Your task to perform on an android device: Go to accessibility settings Image 0: 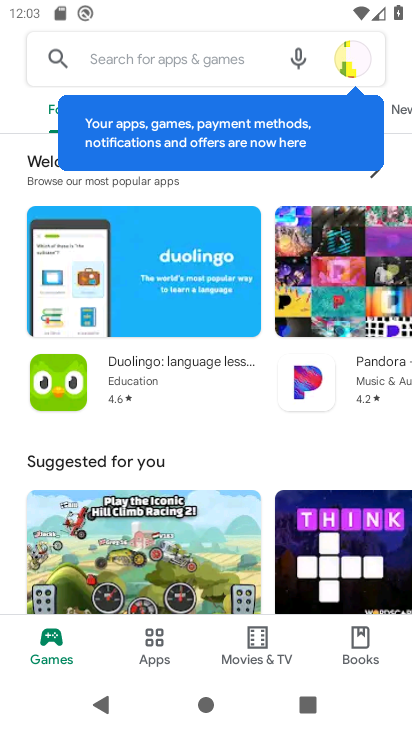
Step 0: press home button
Your task to perform on an android device: Go to accessibility settings Image 1: 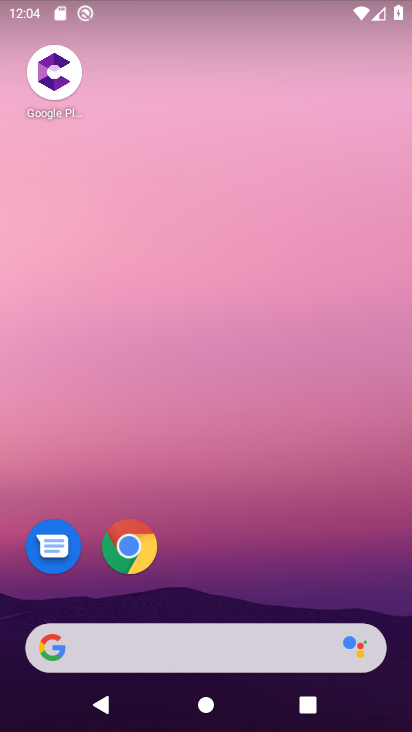
Step 1: click (317, 160)
Your task to perform on an android device: Go to accessibility settings Image 2: 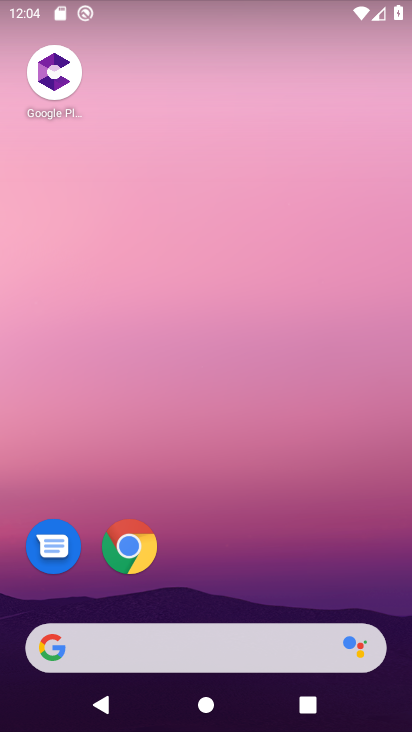
Step 2: drag from (240, 391) to (263, 179)
Your task to perform on an android device: Go to accessibility settings Image 3: 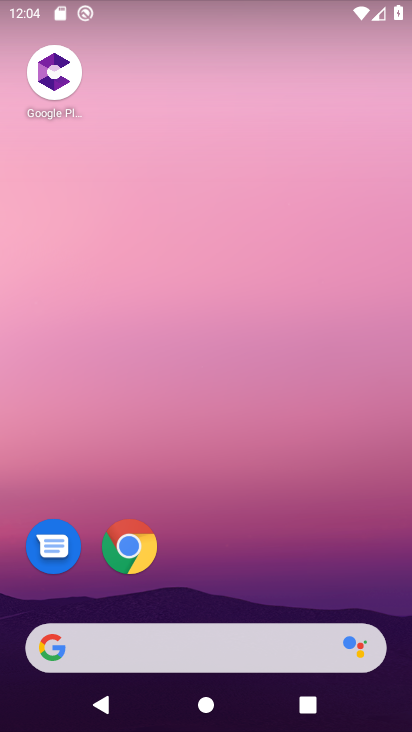
Step 3: drag from (228, 524) to (255, 185)
Your task to perform on an android device: Go to accessibility settings Image 4: 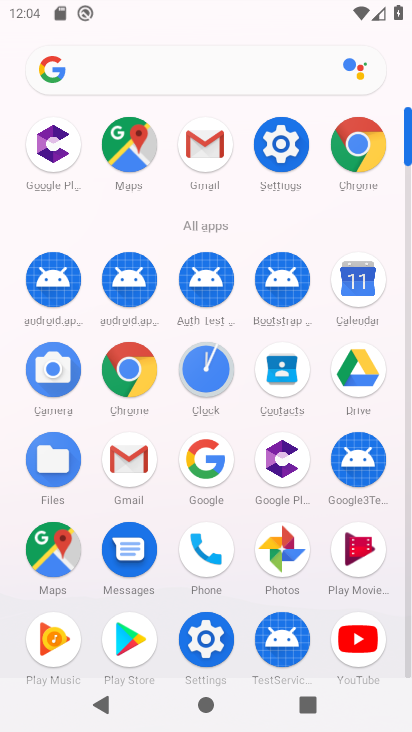
Step 4: click (257, 130)
Your task to perform on an android device: Go to accessibility settings Image 5: 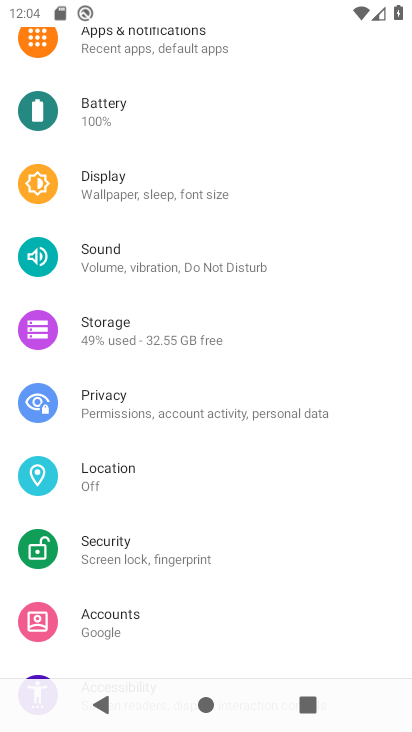
Step 5: drag from (227, 413) to (249, 280)
Your task to perform on an android device: Go to accessibility settings Image 6: 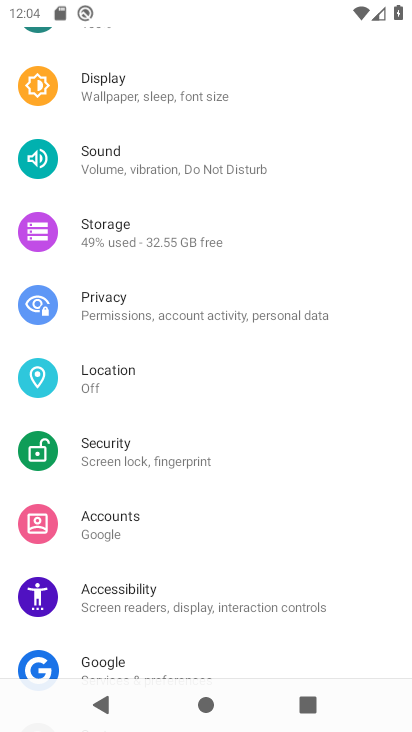
Step 6: click (207, 591)
Your task to perform on an android device: Go to accessibility settings Image 7: 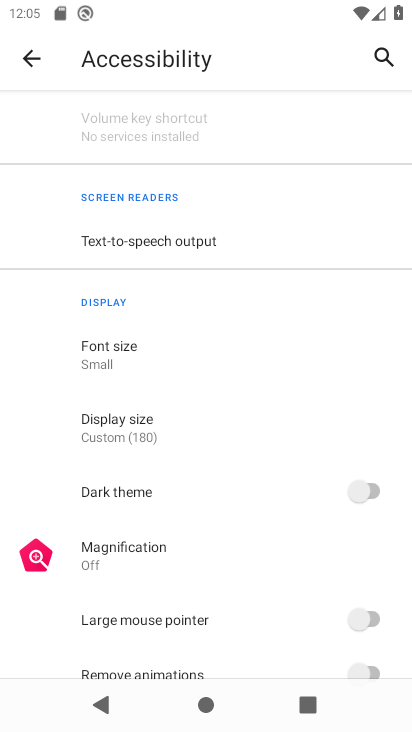
Step 7: task complete